Your task to perform on an android device: Search for Italian restaurants on Maps Image 0: 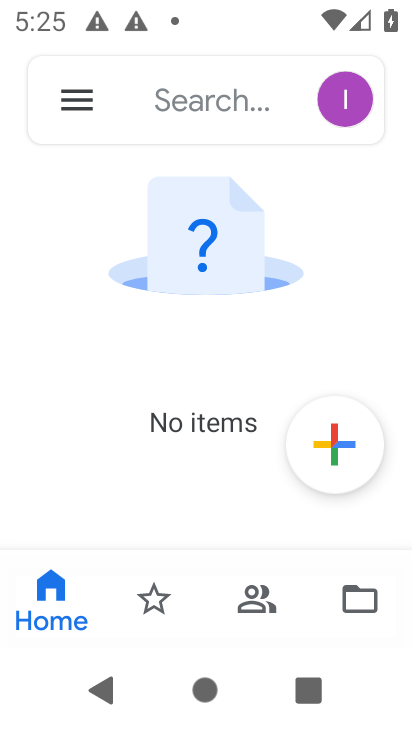
Step 0: press home button
Your task to perform on an android device: Search for Italian restaurants on Maps Image 1: 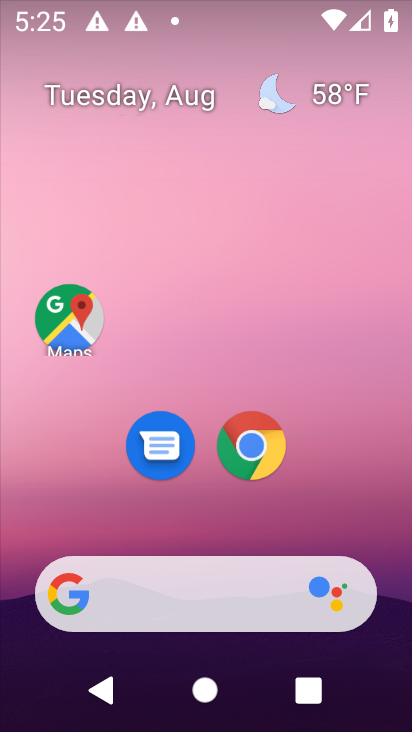
Step 1: click (196, 531)
Your task to perform on an android device: Search for Italian restaurants on Maps Image 2: 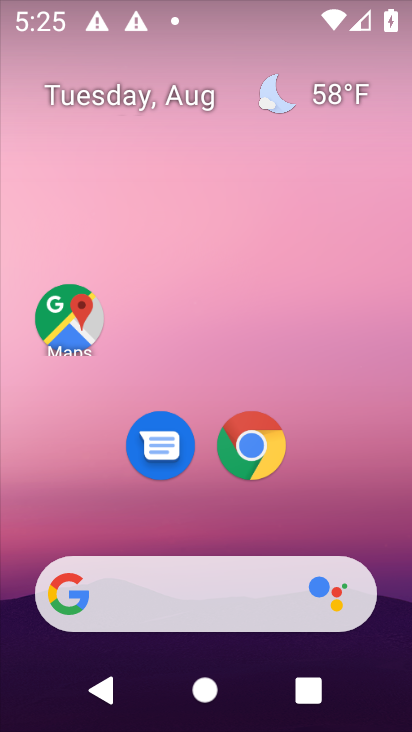
Step 2: click (58, 312)
Your task to perform on an android device: Search for Italian restaurants on Maps Image 3: 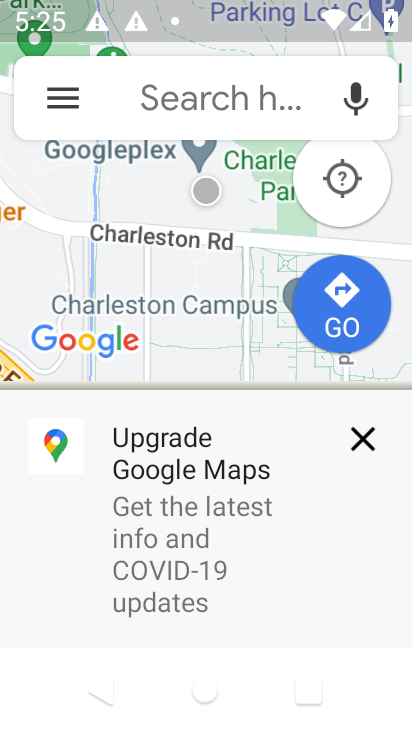
Step 3: click (373, 450)
Your task to perform on an android device: Search for Italian restaurants on Maps Image 4: 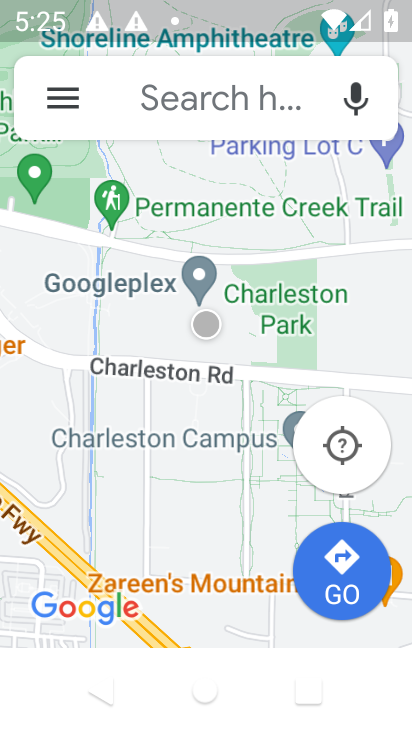
Step 4: click (219, 91)
Your task to perform on an android device: Search for Italian restaurants on Maps Image 5: 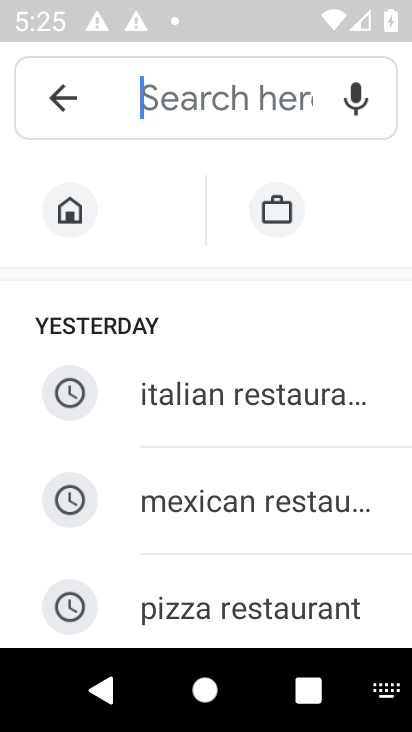
Step 5: type "italian "
Your task to perform on an android device: Search for Italian restaurants on Maps Image 6: 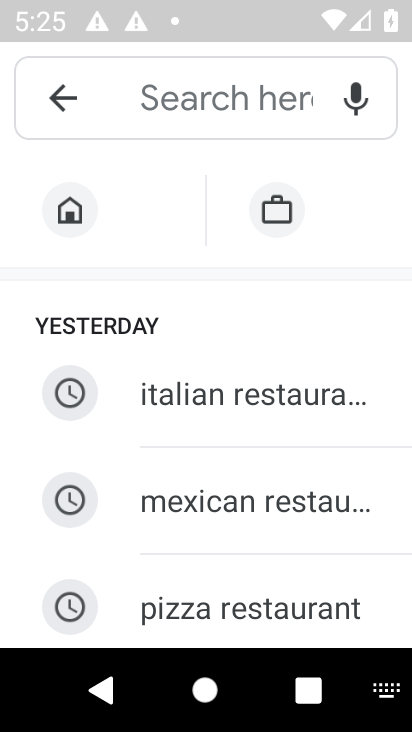
Step 6: click (229, 396)
Your task to perform on an android device: Search for Italian restaurants on Maps Image 7: 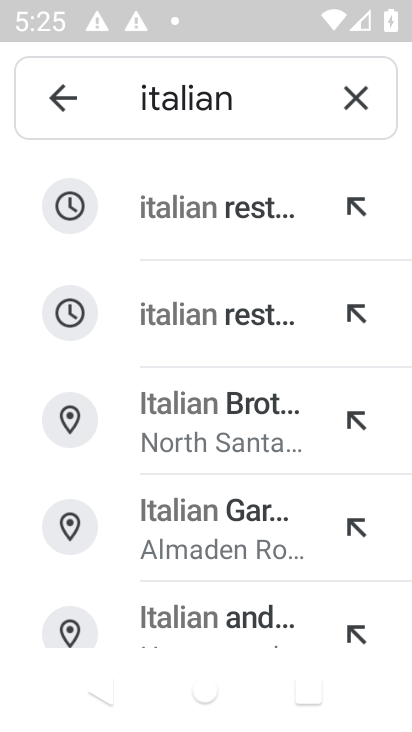
Step 7: click (202, 211)
Your task to perform on an android device: Search for Italian restaurants on Maps Image 8: 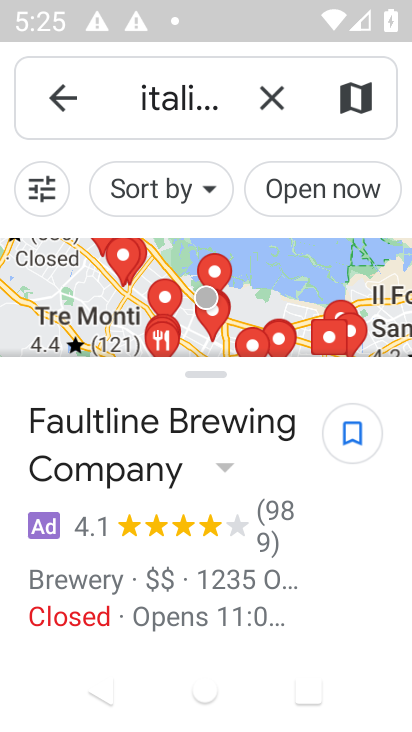
Step 8: task complete